Your task to perform on an android device: toggle show notifications on the lock screen Image 0: 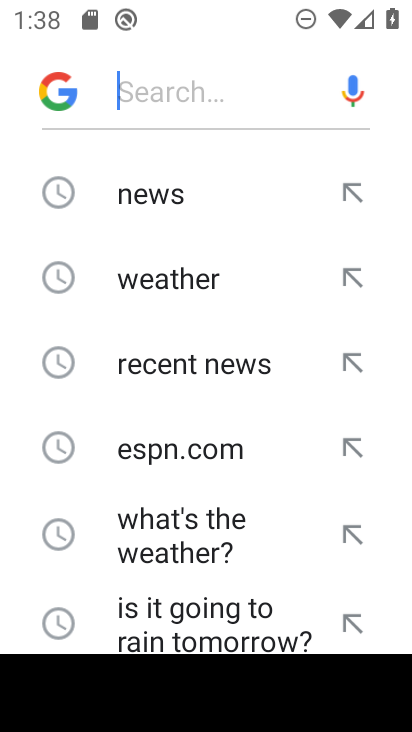
Step 0: press home button
Your task to perform on an android device: toggle show notifications on the lock screen Image 1: 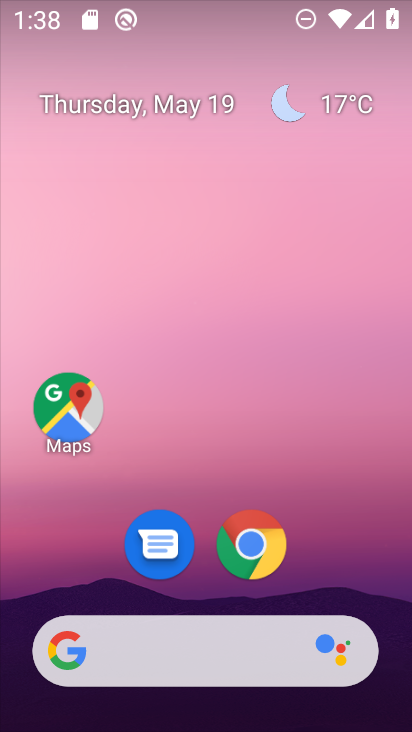
Step 1: drag from (211, 722) to (213, 243)
Your task to perform on an android device: toggle show notifications on the lock screen Image 2: 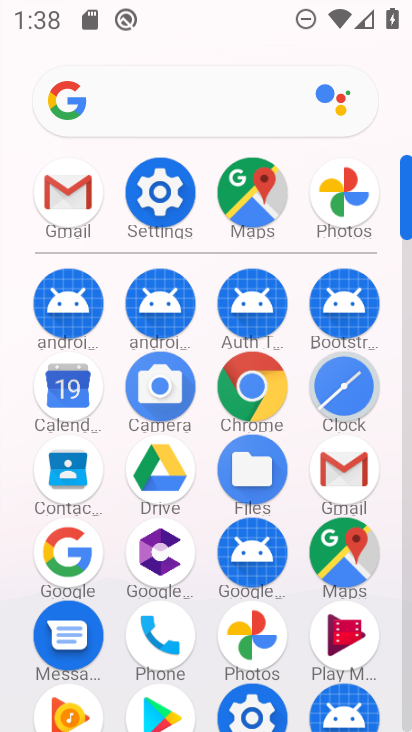
Step 2: click (151, 189)
Your task to perform on an android device: toggle show notifications on the lock screen Image 3: 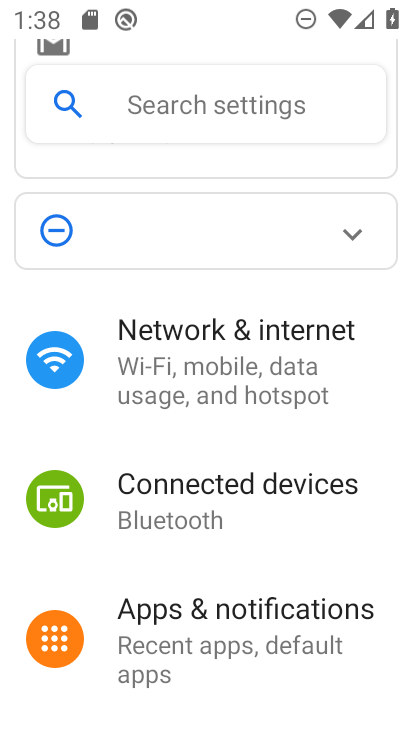
Step 3: click (198, 631)
Your task to perform on an android device: toggle show notifications on the lock screen Image 4: 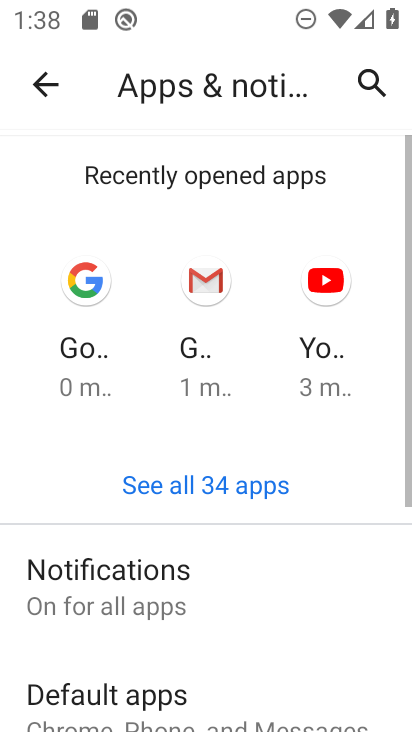
Step 4: drag from (211, 649) to (216, 337)
Your task to perform on an android device: toggle show notifications on the lock screen Image 5: 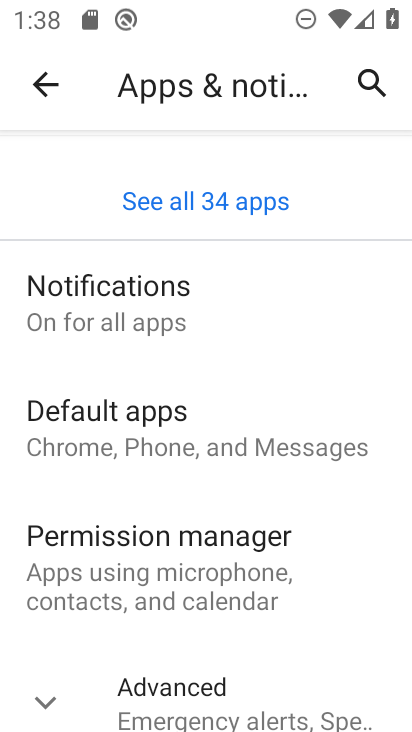
Step 5: click (105, 317)
Your task to perform on an android device: toggle show notifications on the lock screen Image 6: 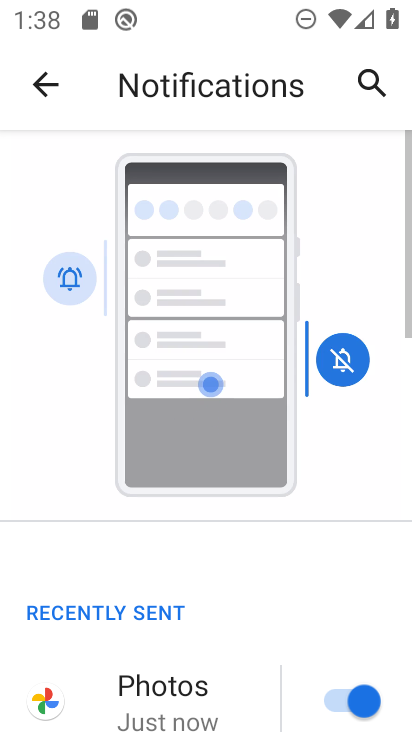
Step 6: drag from (170, 699) to (170, 342)
Your task to perform on an android device: toggle show notifications on the lock screen Image 7: 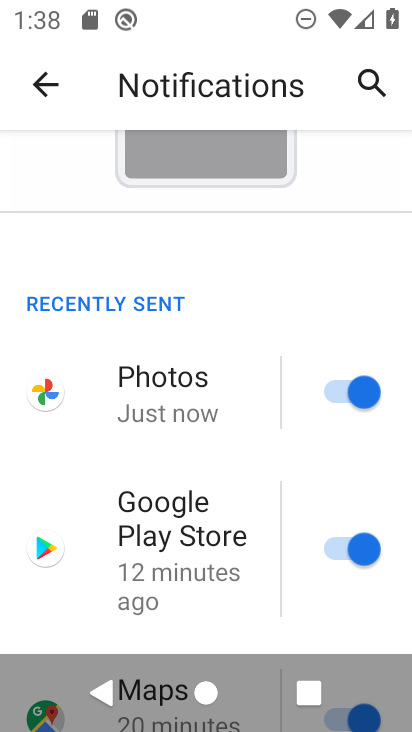
Step 7: drag from (163, 601) to (162, 225)
Your task to perform on an android device: toggle show notifications on the lock screen Image 8: 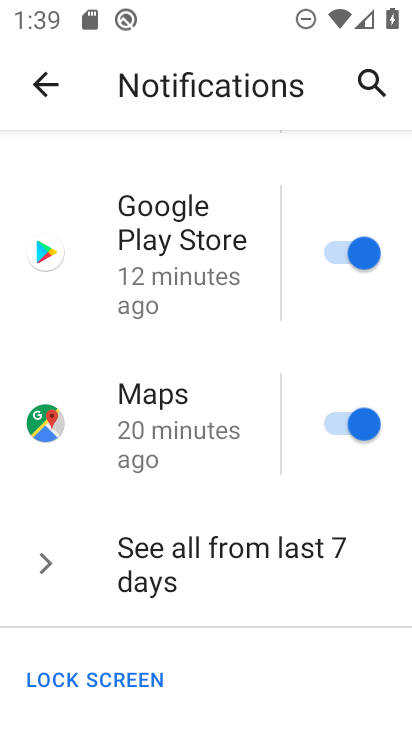
Step 8: drag from (178, 641) to (178, 275)
Your task to perform on an android device: toggle show notifications on the lock screen Image 9: 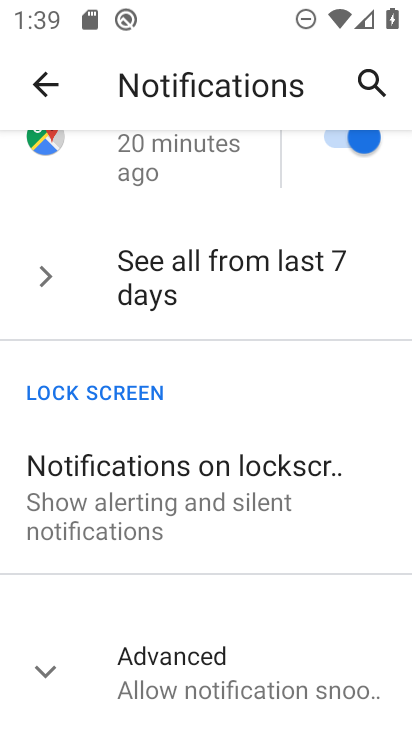
Step 9: click (179, 474)
Your task to perform on an android device: toggle show notifications on the lock screen Image 10: 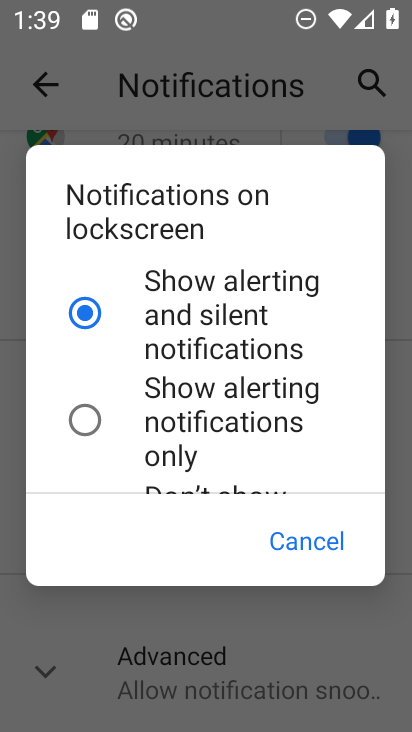
Step 10: click (85, 416)
Your task to perform on an android device: toggle show notifications on the lock screen Image 11: 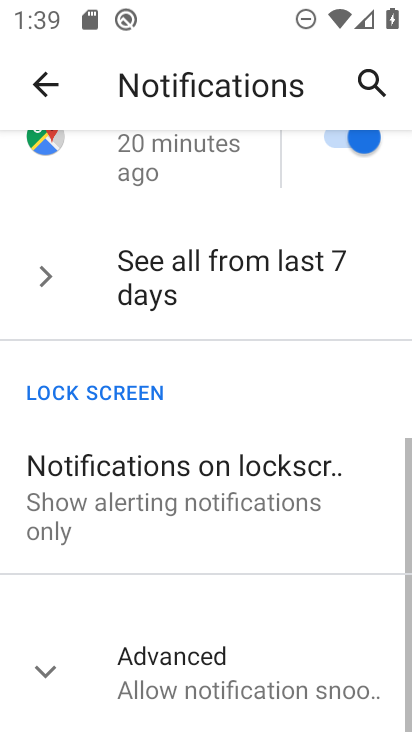
Step 11: task complete